Your task to perform on an android device: What's the weather today? Image 0: 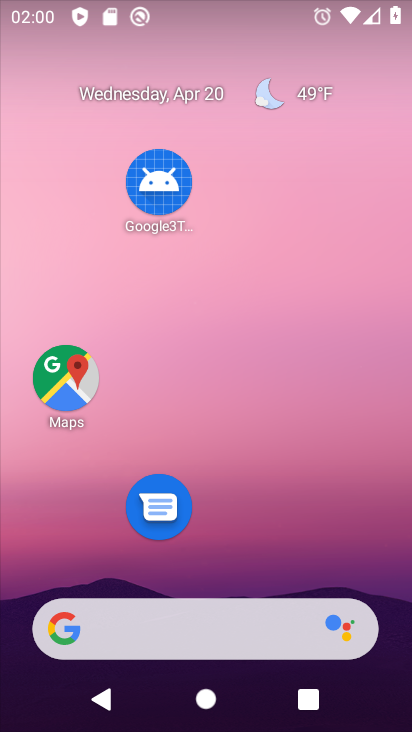
Step 0: click (276, 93)
Your task to perform on an android device: What's the weather today? Image 1: 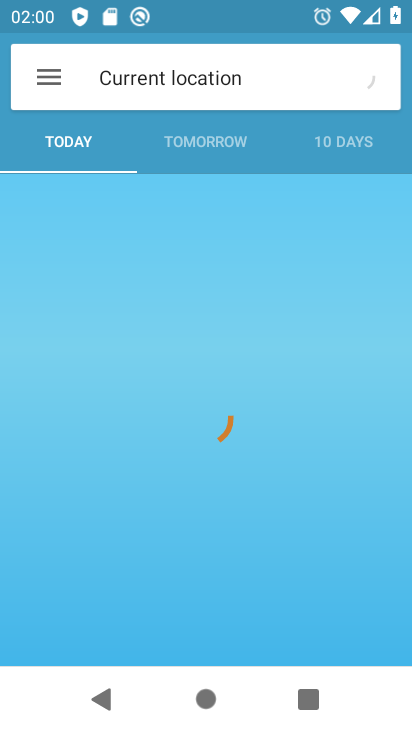
Step 1: click (306, 98)
Your task to perform on an android device: What's the weather today? Image 2: 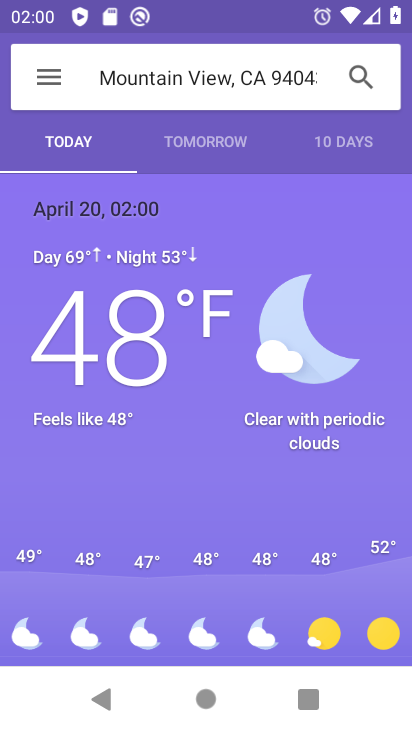
Step 2: task complete